Your task to perform on an android device: set default search engine in the chrome app Image 0: 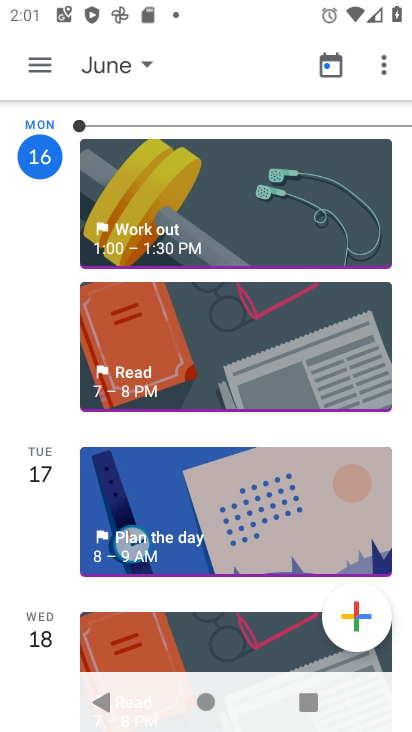
Step 0: press home button
Your task to perform on an android device: set default search engine in the chrome app Image 1: 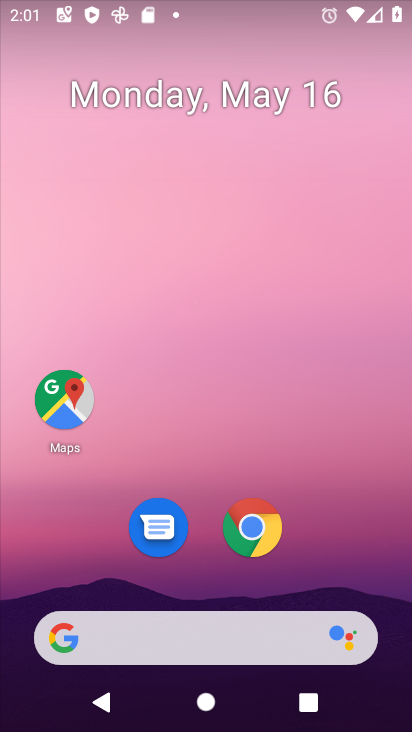
Step 1: drag from (306, 515) to (306, 225)
Your task to perform on an android device: set default search engine in the chrome app Image 2: 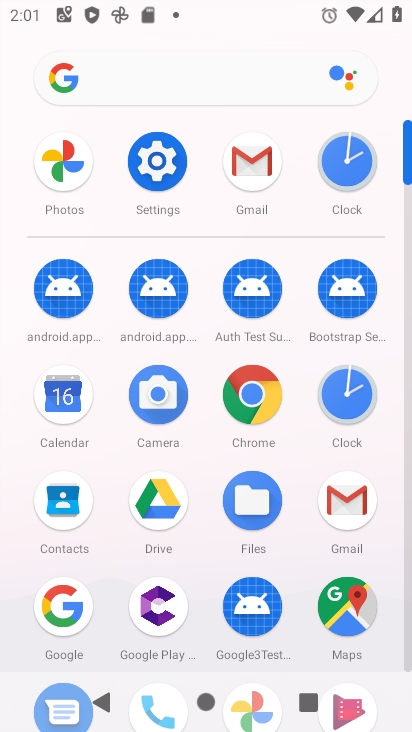
Step 2: click (251, 391)
Your task to perform on an android device: set default search engine in the chrome app Image 3: 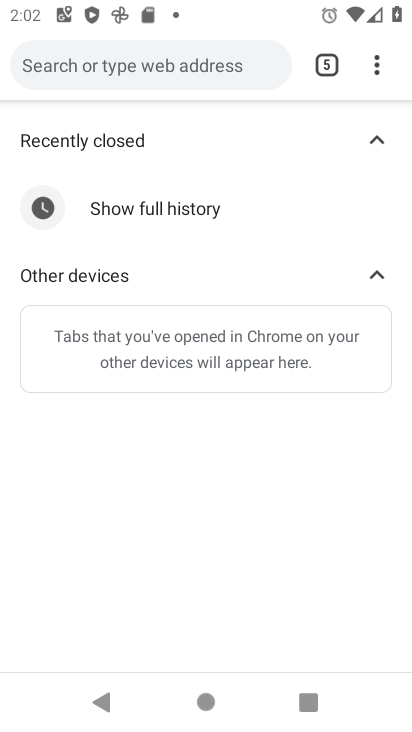
Step 3: click (387, 74)
Your task to perform on an android device: set default search engine in the chrome app Image 4: 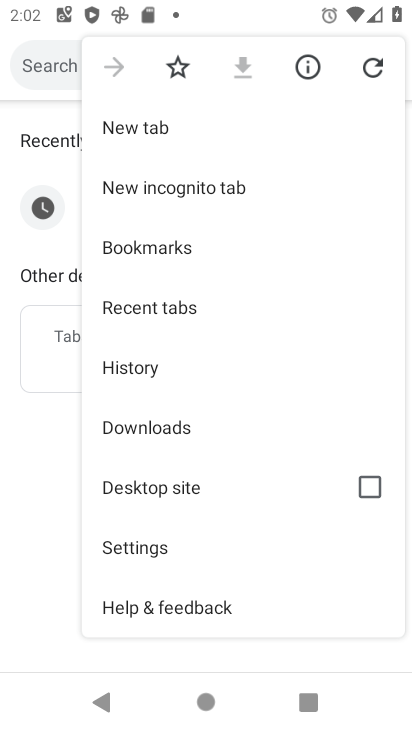
Step 4: click (226, 562)
Your task to perform on an android device: set default search engine in the chrome app Image 5: 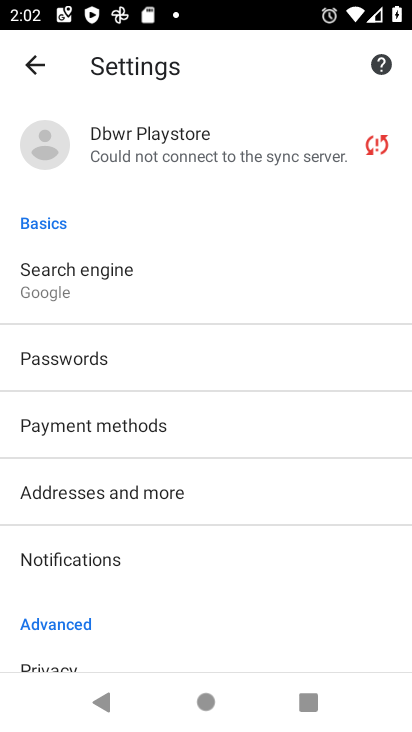
Step 5: click (176, 279)
Your task to perform on an android device: set default search engine in the chrome app Image 6: 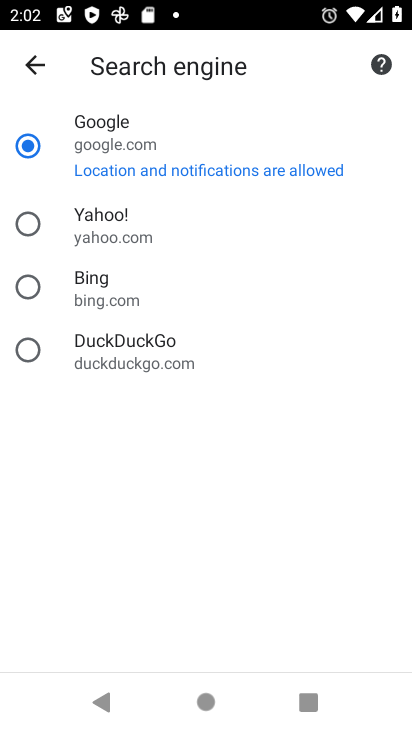
Step 6: click (145, 213)
Your task to perform on an android device: set default search engine in the chrome app Image 7: 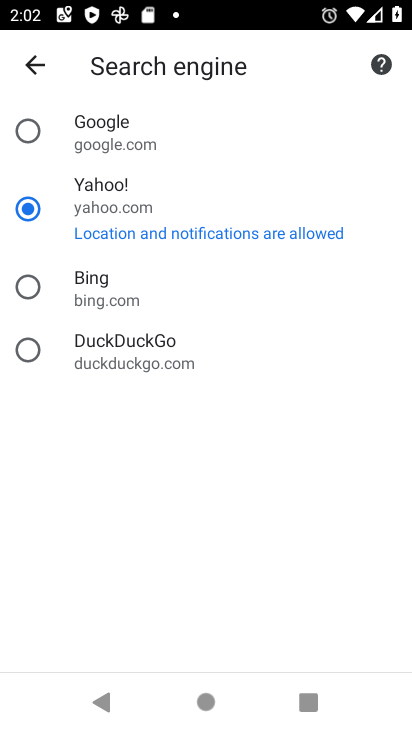
Step 7: task complete